Your task to perform on an android device: open app "ZOOM Cloud Meetings" (install if not already installed) Image 0: 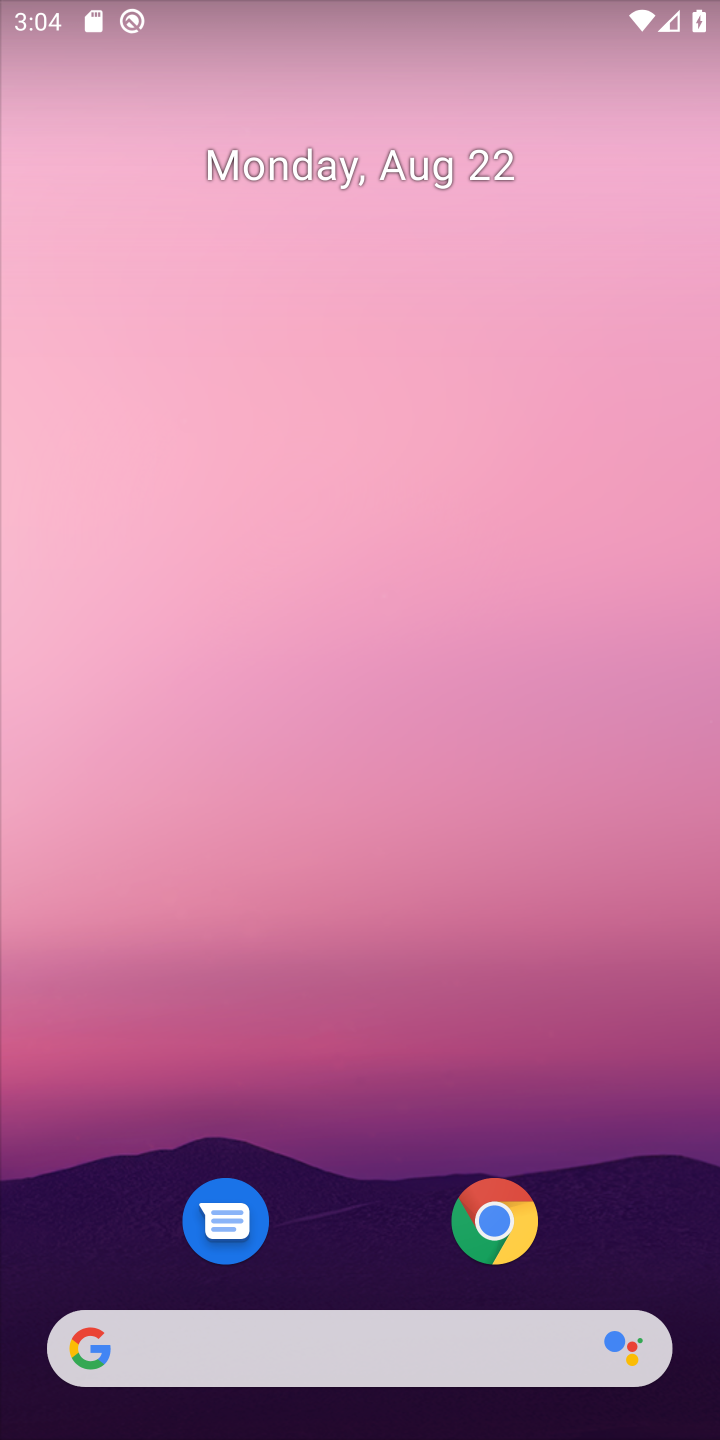
Step 0: drag from (390, 1256) to (412, 100)
Your task to perform on an android device: open app "ZOOM Cloud Meetings" (install if not already installed) Image 1: 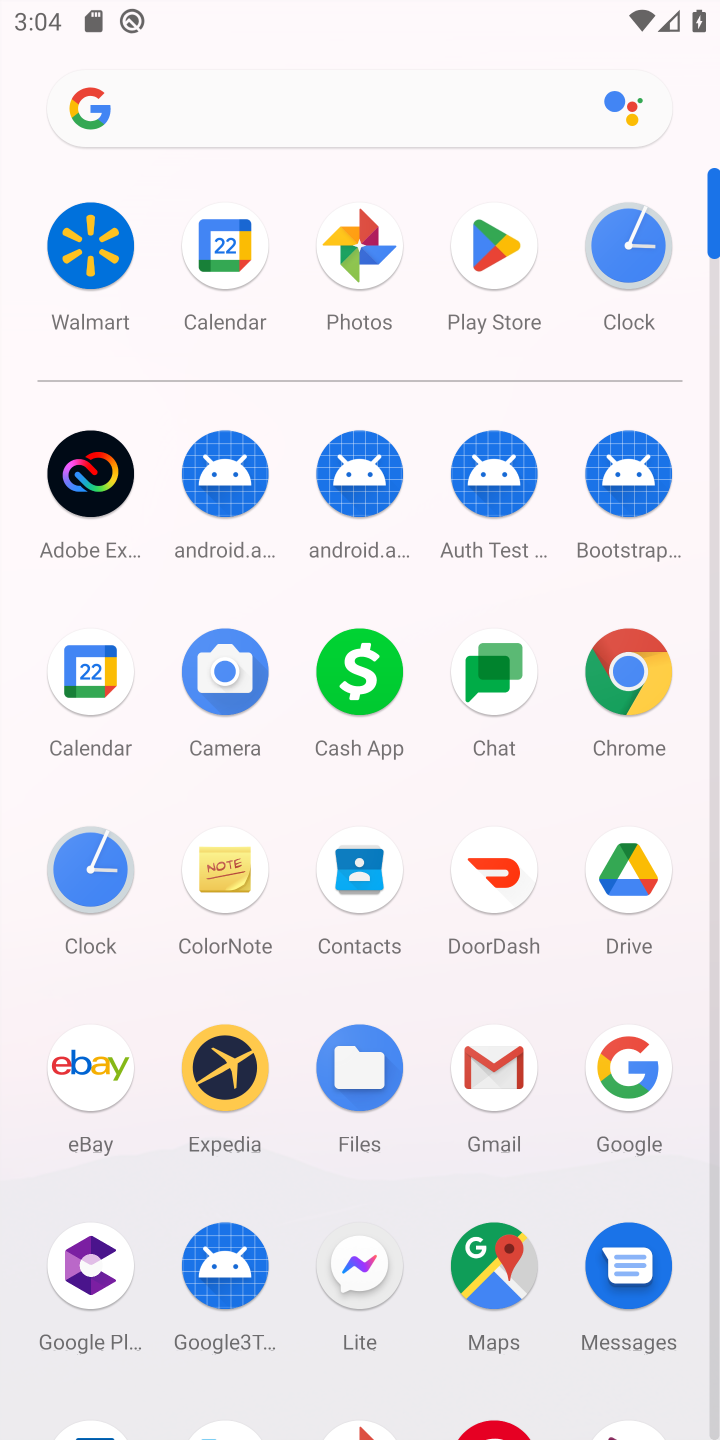
Step 1: click (492, 234)
Your task to perform on an android device: open app "ZOOM Cloud Meetings" (install if not already installed) Image 2: 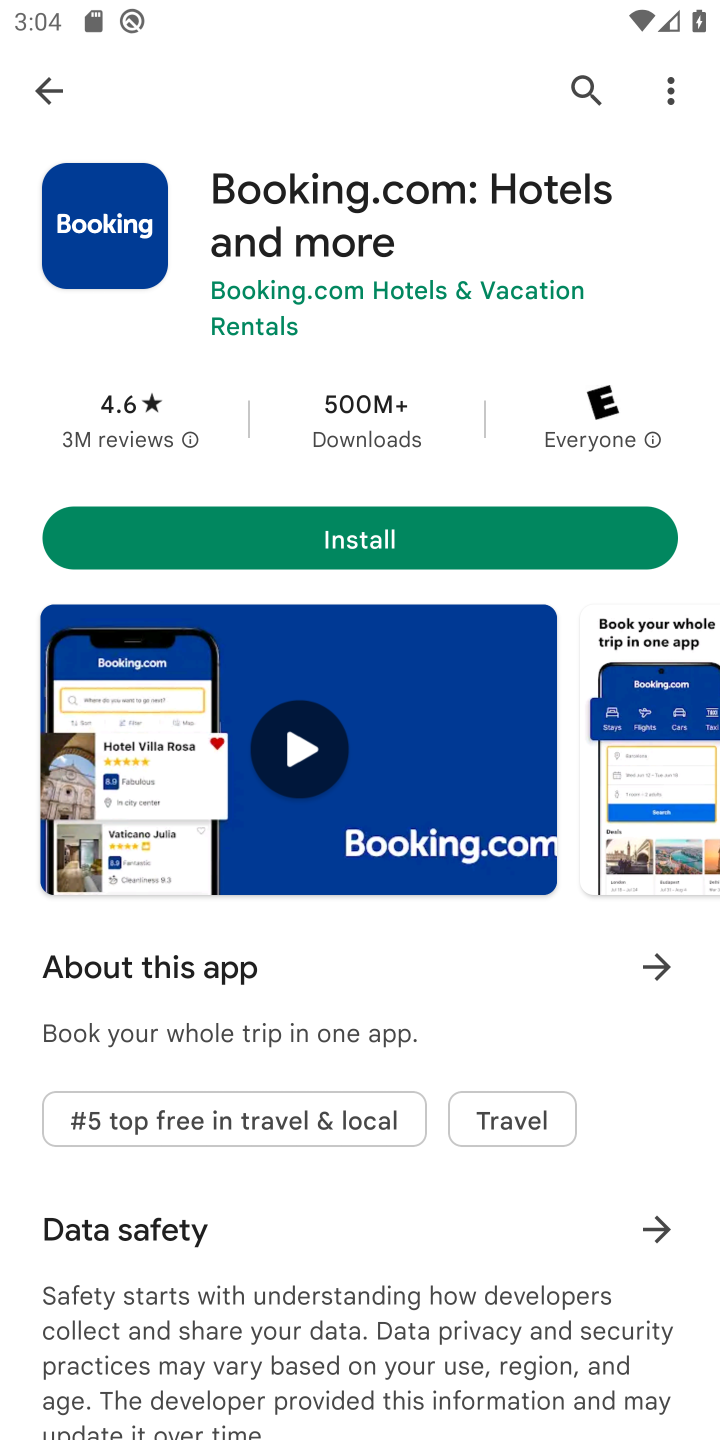
Step 2: click (579, 94)
Your task to perform on an android device: open app "ZOOM Cloud Meetings" (install if not already installed) Image 3: 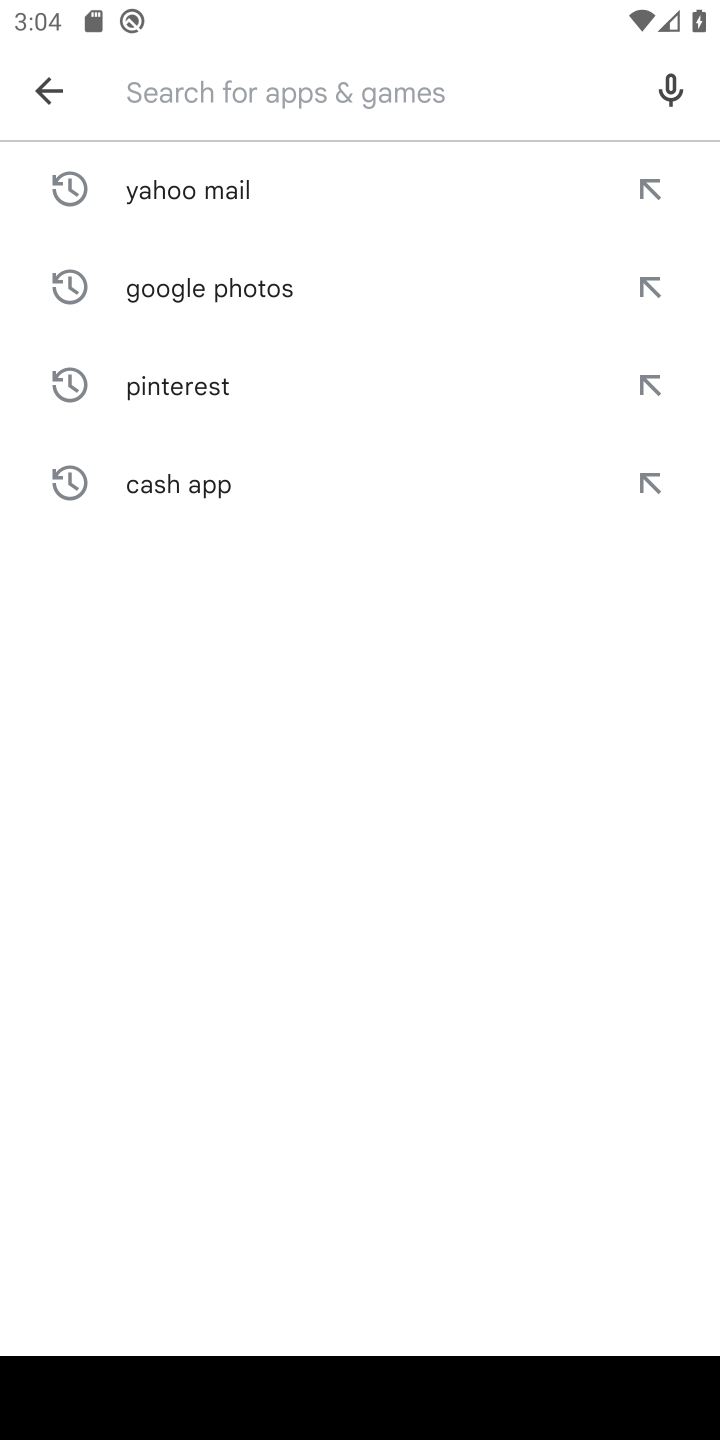
Step 3: type "ZOOM Cloud Meetings"
Your task to perform on an android device: open app "ZOOM Cloud Meetings" (install if not already installed) Image 4: 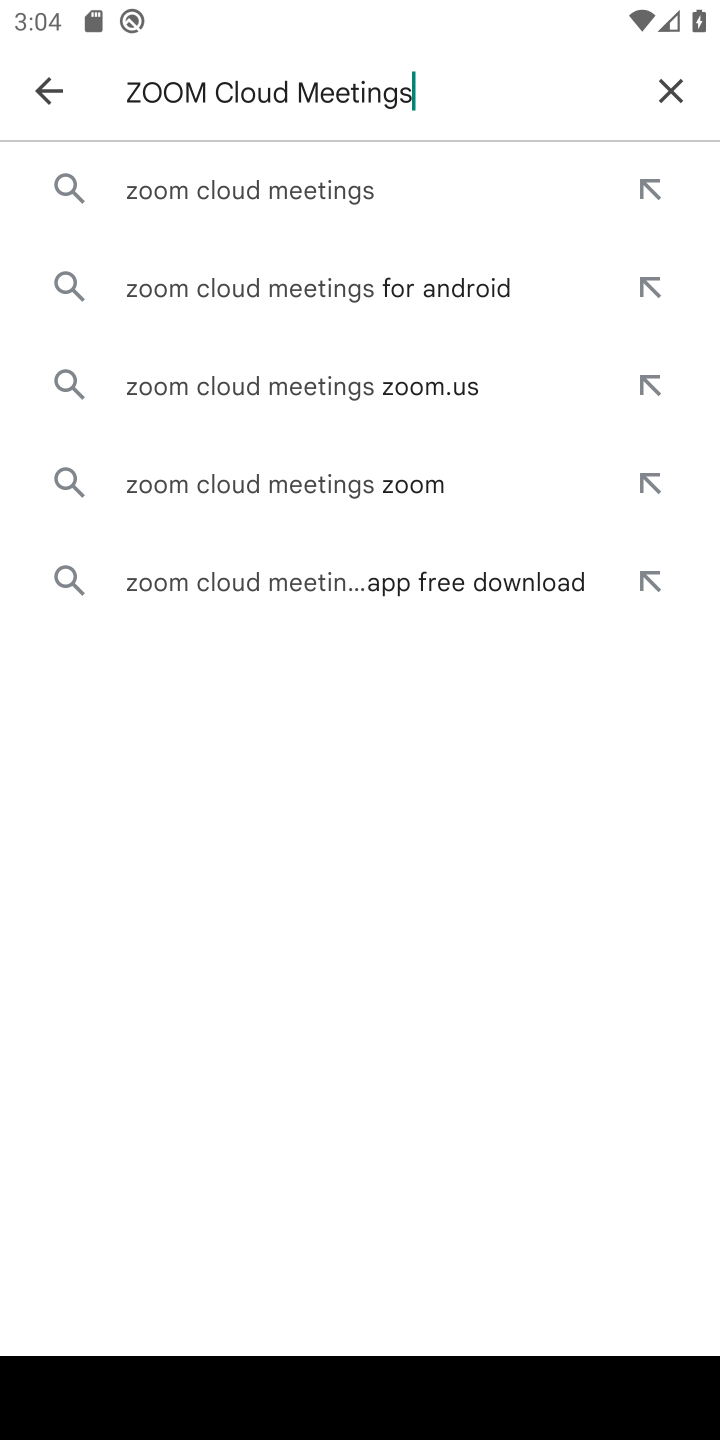
Step 4: click (288, 200)
Your task to perform on an android device: open app "ZOOM Cloud Meetings" (install if not already installed) Image 5: 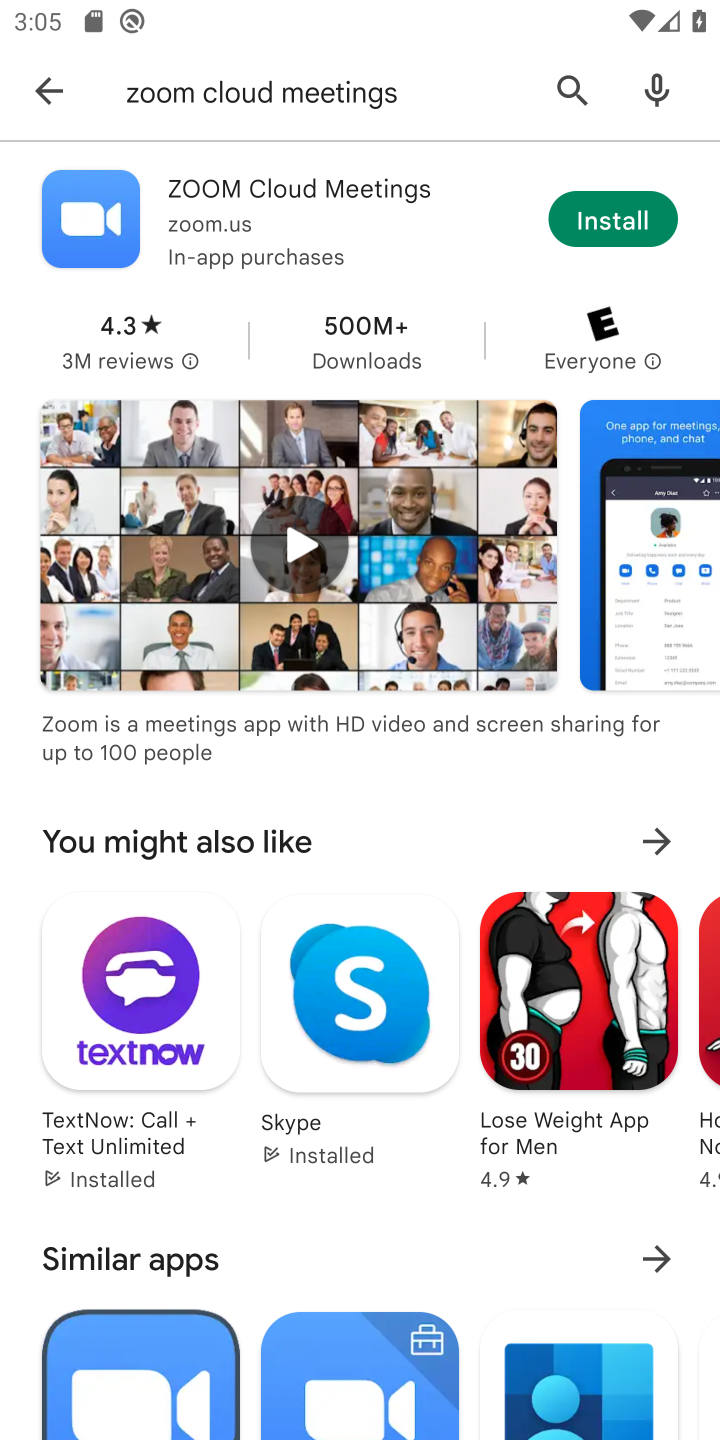
Step 5: click (627, 218)
Your task to perform on an android device: open app "ZOOM Cloud Meetings" (install if not already installed) Image 6: 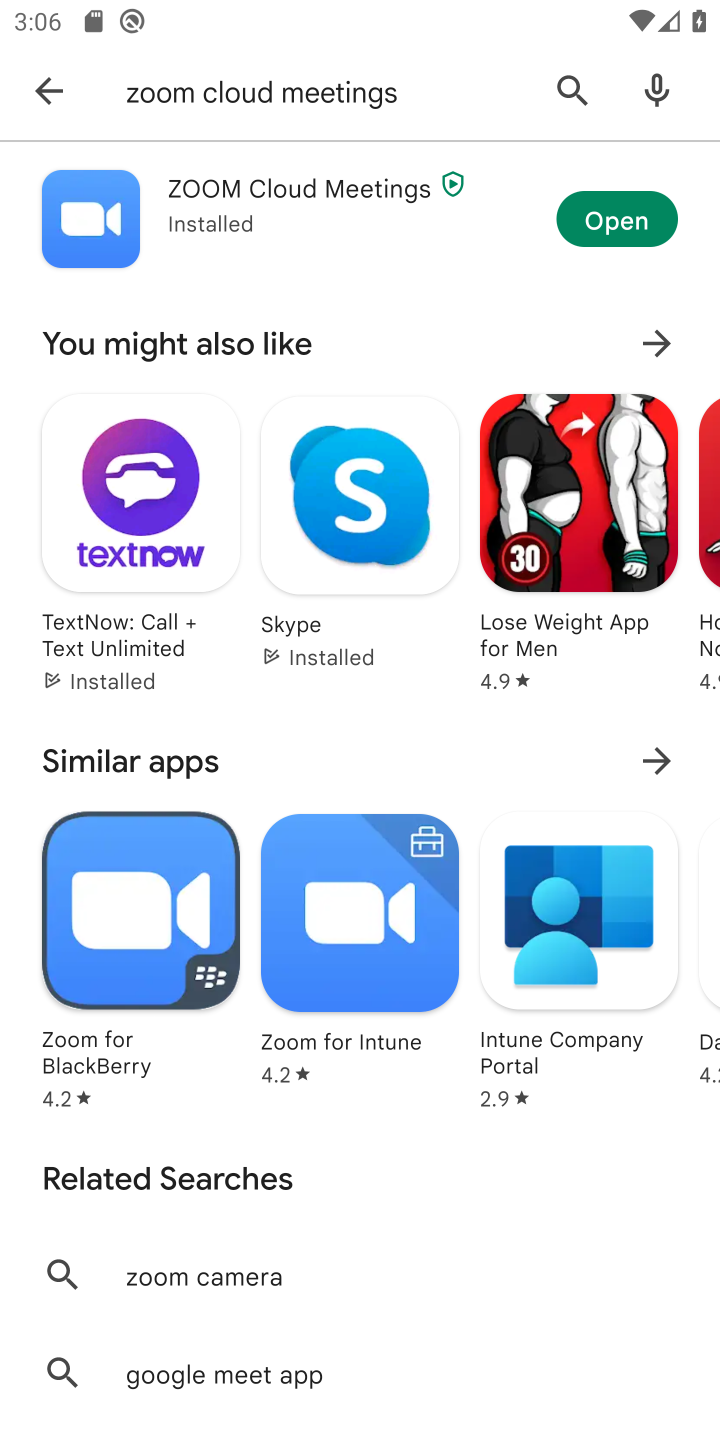
Step 6: click (617, 226)
Your task to perform on an android device: open app "ZOOM Cloud Meetings" (install if not already installed) Image 7: 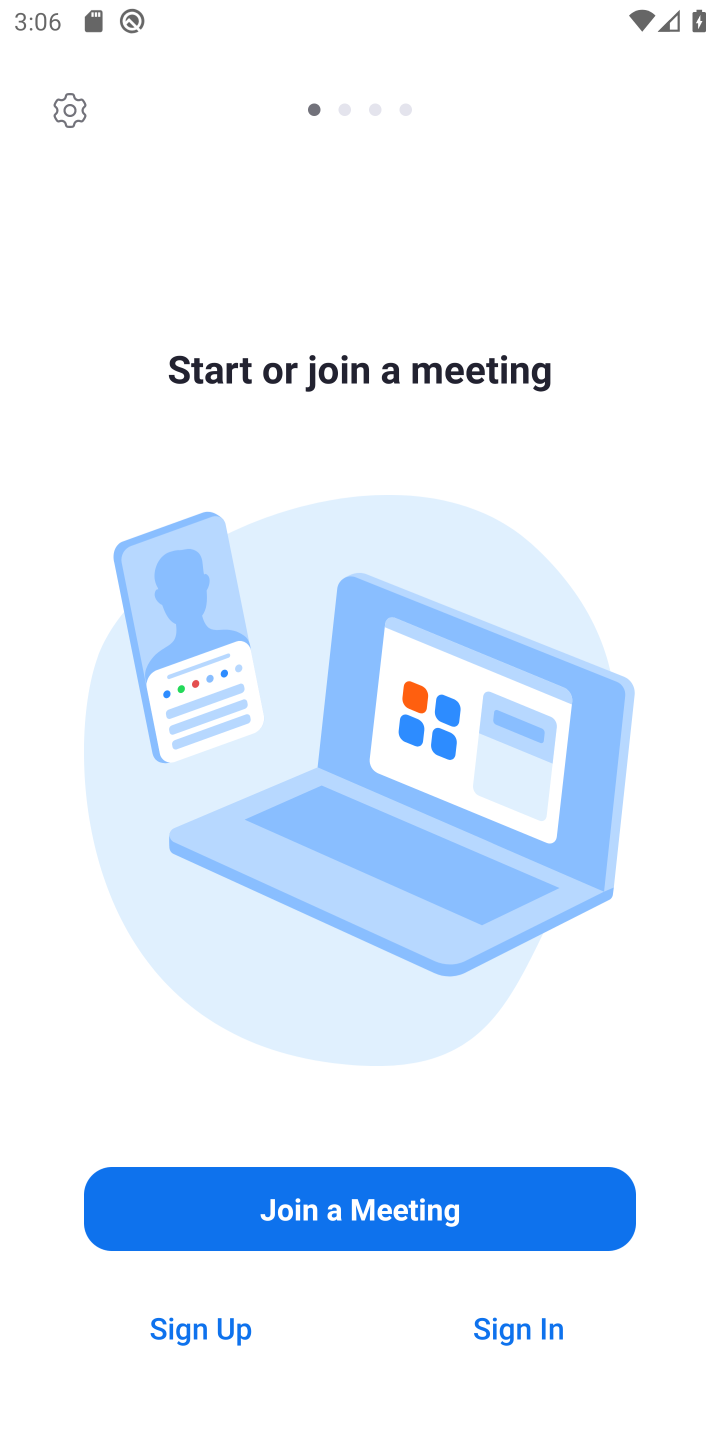
Step 7: task complete